Your task to perform on an android device: open chrome privacy settings Image 0: 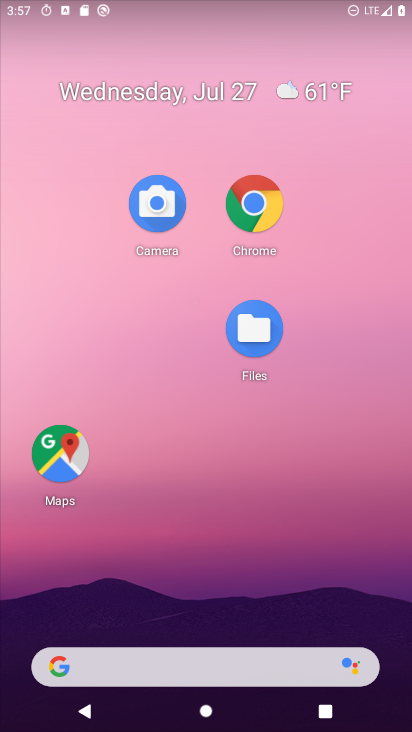
Step 0: click (258, 205)
Your task to perform on an android device: open chrome privacy settings Image 1: 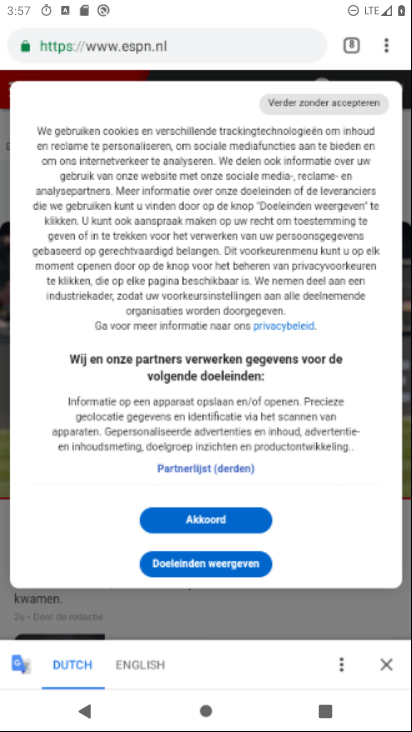
Step 1: click (385, 46)
Your task to perform on an android device: open chrome privacy settings Image 2: 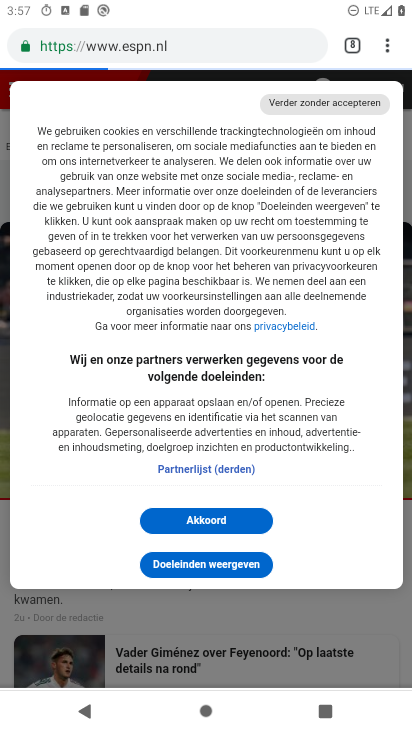
Step 2: drag from (385, 54) to (239, 547)
Your task to perform on an android device: open chrome privacy settings Image 3: 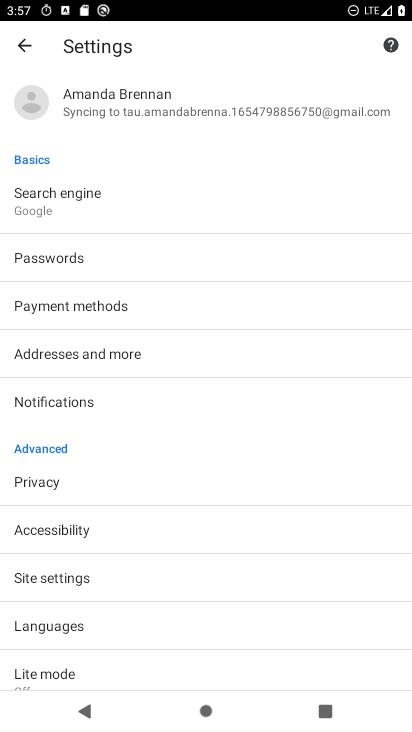
Step 3: click (108, 484)
Your task to perform on an android device: open chrome privacy settings Image 4: 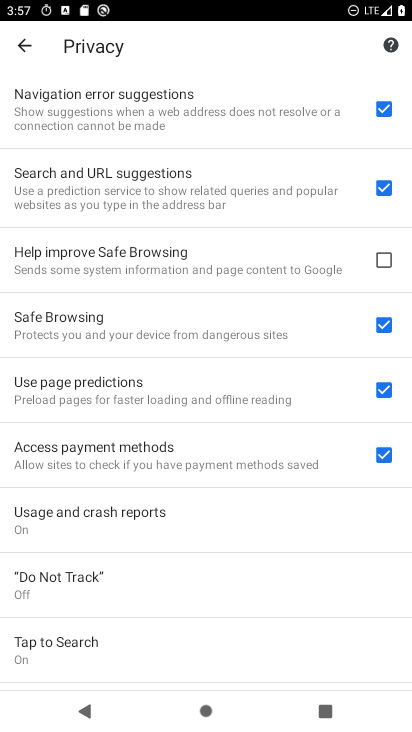
Step 4: task complete